Your task to perform on an android device: Show me popular videos on Youtube Image 0: 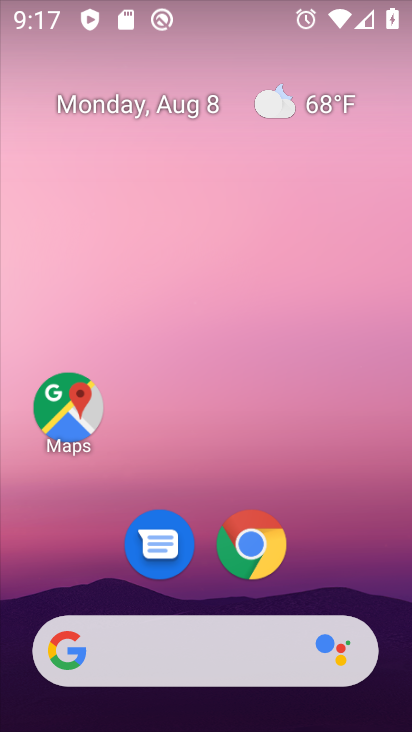
Step 0: drag from (318, 582) to (342, 43)
Your task to perform on an android device: Show me popular videos on Youtube Image 1: 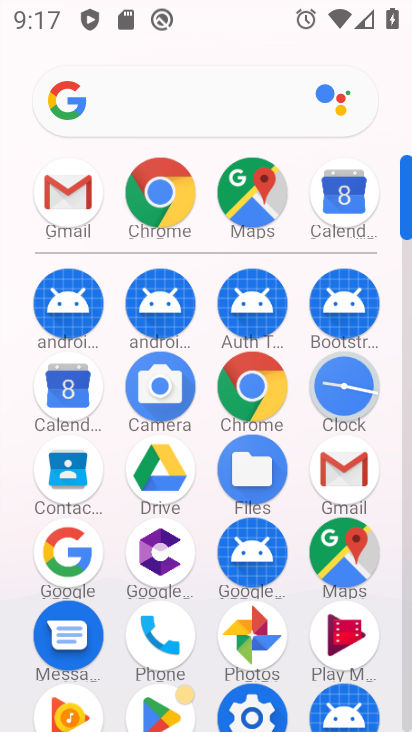
Step 1: drag from (299, 600) to (297, 161)
Your task to perform on an android device: Show me popular videos on Youtube Image 2: 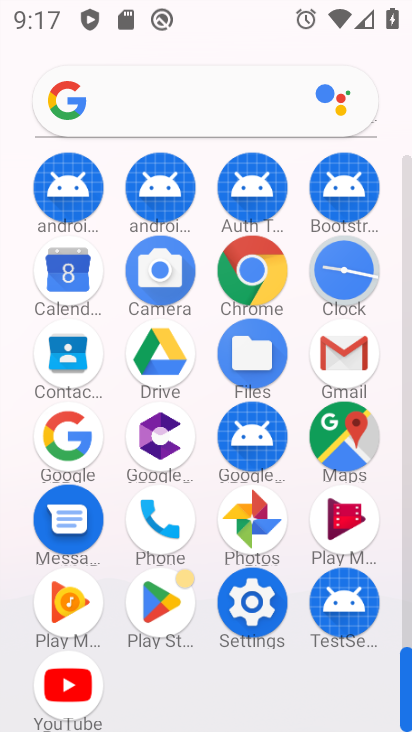
Step 2: click (61, 674)
Your task to perform on an android device: Show me popular videos on Youtube Image 3: 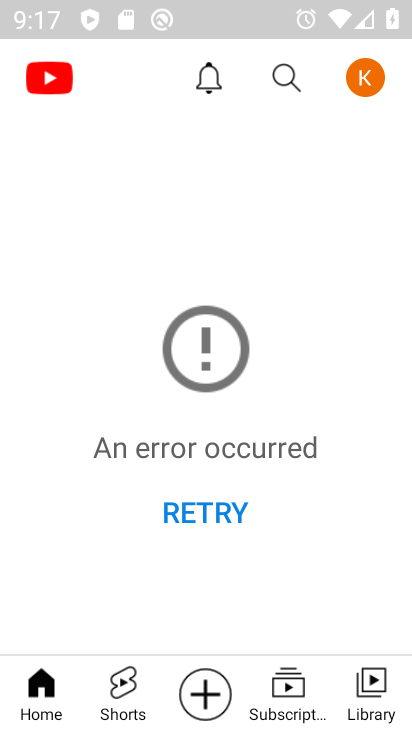
Step 3: drag from (208, 191) to (192, 705)
Your task to perform on an android device: Show me popular videos on Youtube Image 4: 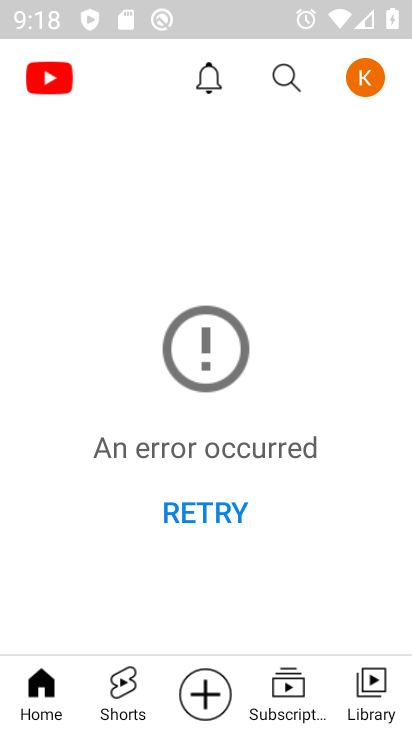
Step 4: click (40, 700)
Your task to perform on an android device: Show me popular videos on Youtube Image 5: 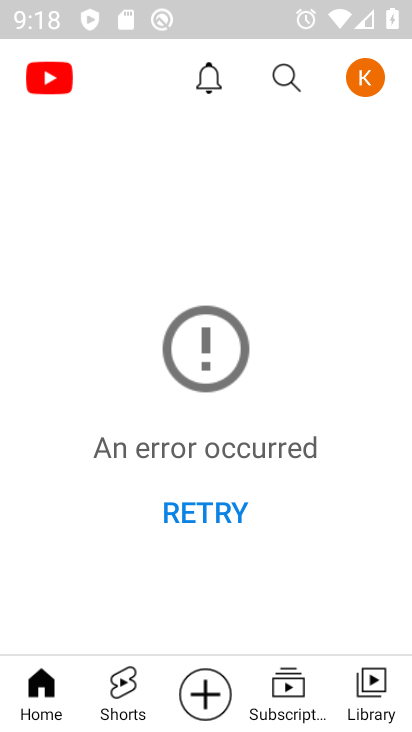
Step 5: click (216, 515)
Your task to perform on an android device: Show me popular videos on Youtube Image 6: 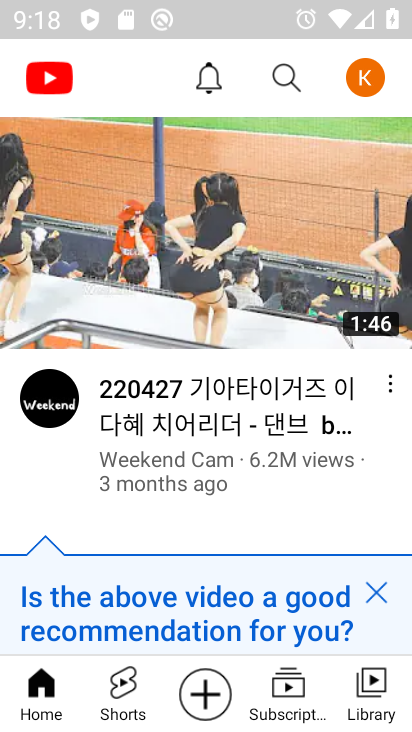
Step 6: drag from (109, 187) to (103, 650)
Your task to perform on an android device: Show me popular videos on Youtube Image 7: 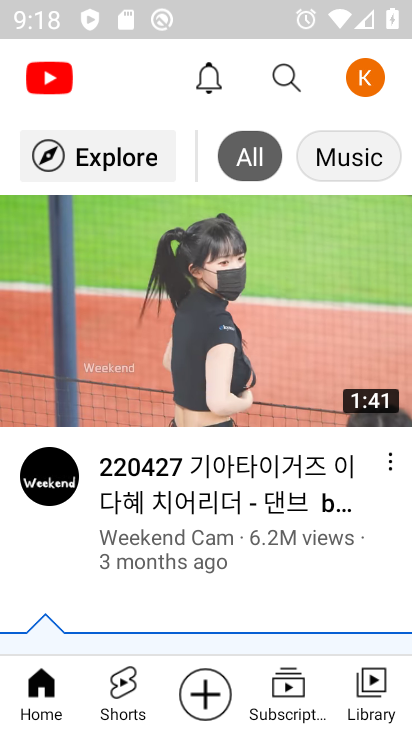
Step 7: click (87, 150)
Your task to perform on an android device: Show me popular videos on Youtube Image 8: 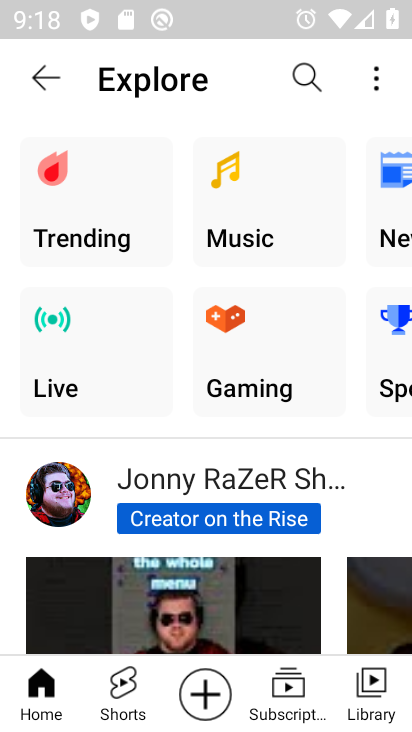
Step 8: click (99, 192)
Your task to perform on an android device: Show me popular videos on Youtube Image 9: 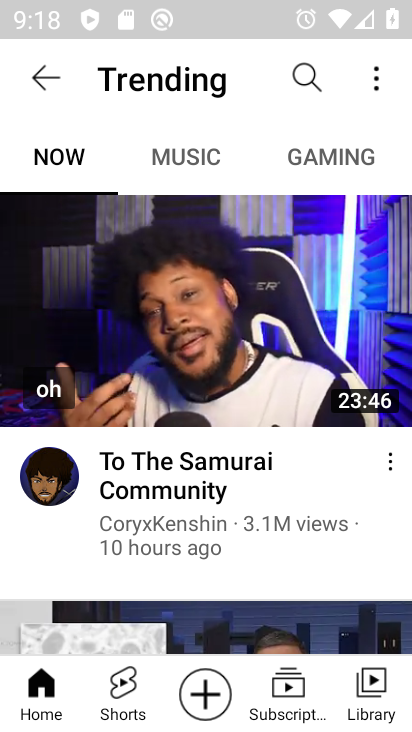
Step 9: task complete